Your task to perform on an android device: toggle show notifications on the lock screen Image 0: 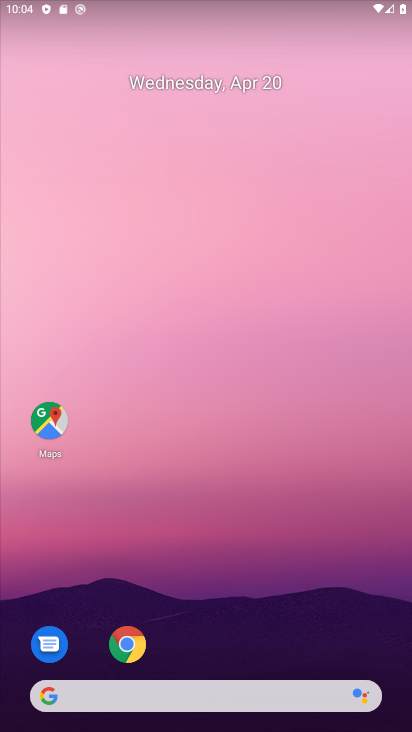
Step 0: drag from (180, 461) to (231, 152)
Your task to perform on an android device: toggle show notifications on the lock screen Image 1: 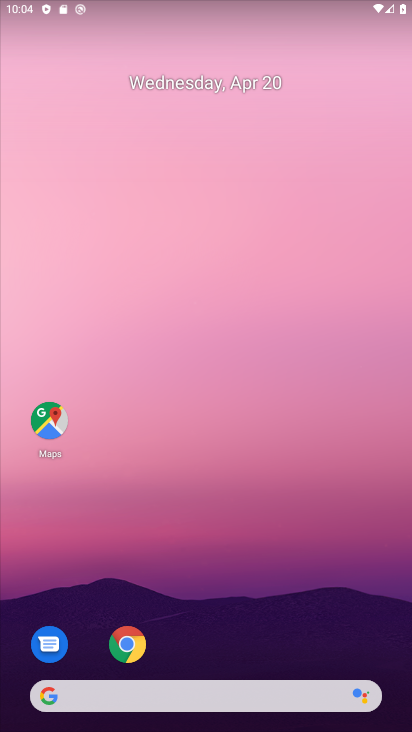
Step 1: drag from (196, 652) to (246, 54)
Your task to perform on an android device: toggle show notifications on the lock screen Image 2: 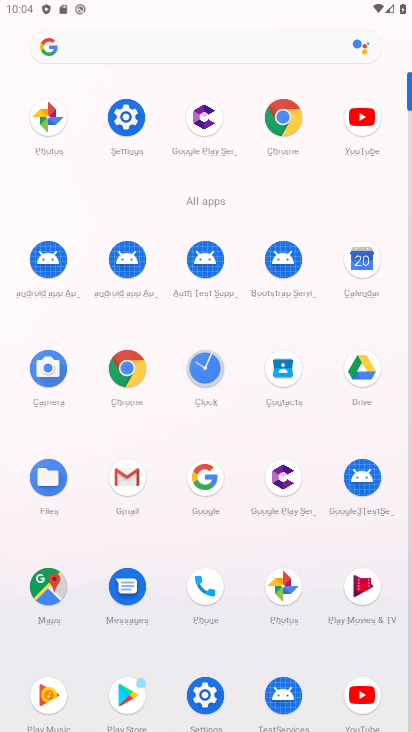
Step 2: click (131, 119)
Your task to perform on an android device: toggle show notifications on the lock screen Image 3: 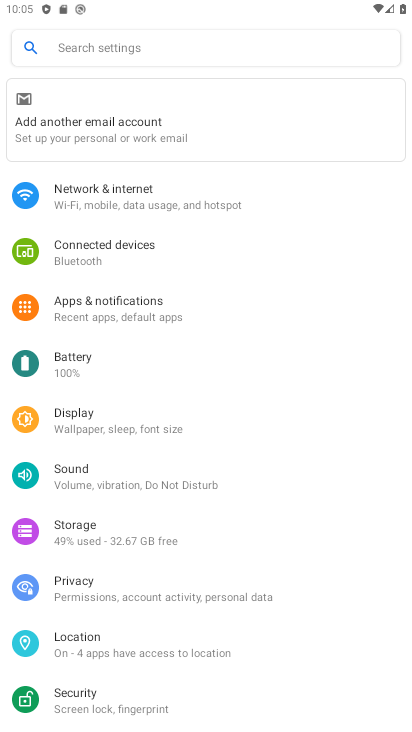
Step 3: click (154, 320)
Your task to perform on an android device: toggle show notifications on the lock screen Image 4: 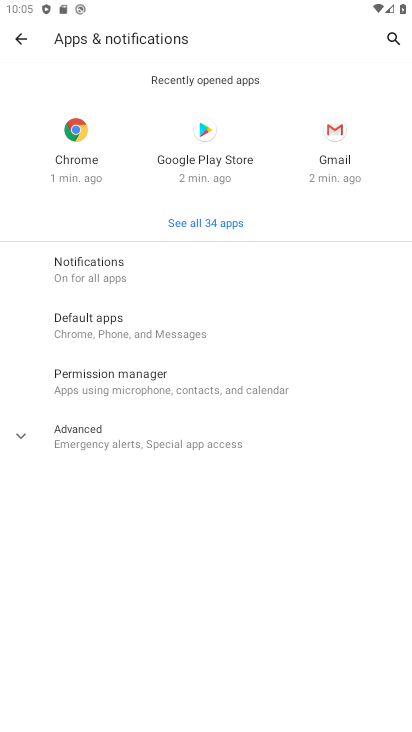
Step 4: click (176, 268)
Your task to perform on an android device: toggle show notifications on the lock screen Image 5: 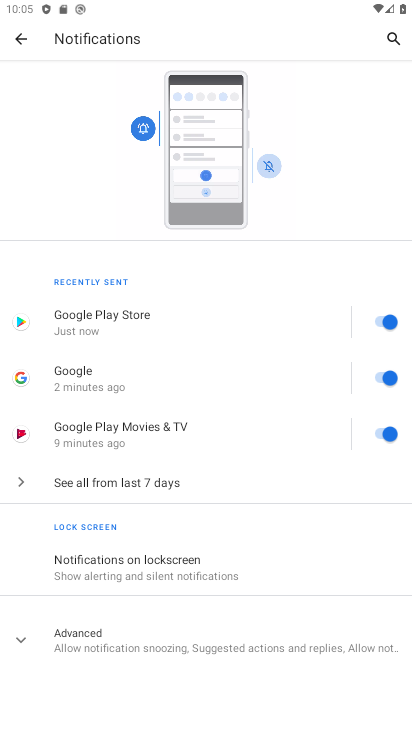
Step 5: click (179, 584)
Your task to perform on an android device: toggle show notifications on the lock screen Image 6: 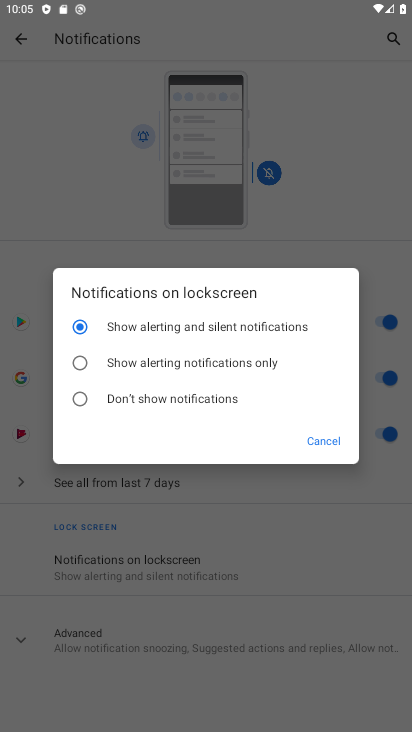
Step 6: click (81, 370)
Your task to perform on an android device: toggle show notifications on the lock screen Image 7: 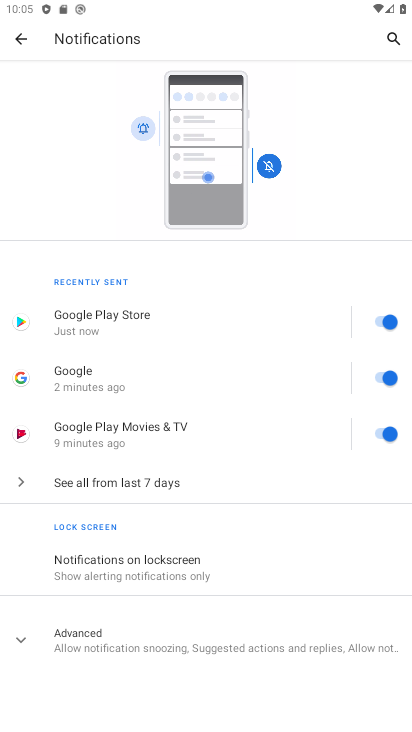
Step 7: task complete